Your task to perform on an android device: What's the news in Argentina? Image 0: 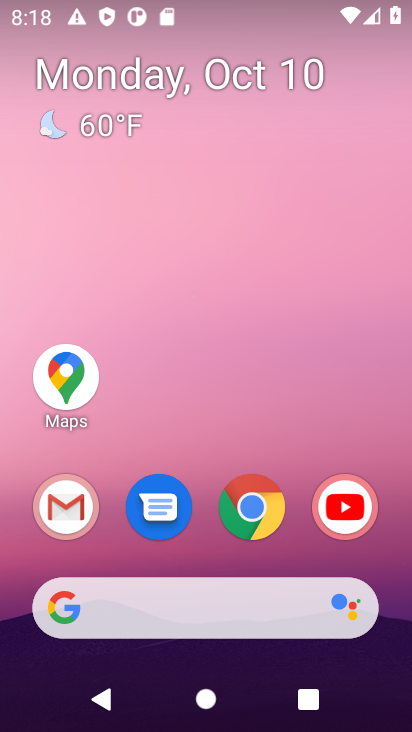
Step 0: click (144, 605)
Your task to perform on an android device: What's the news in Argentina? Image 1: 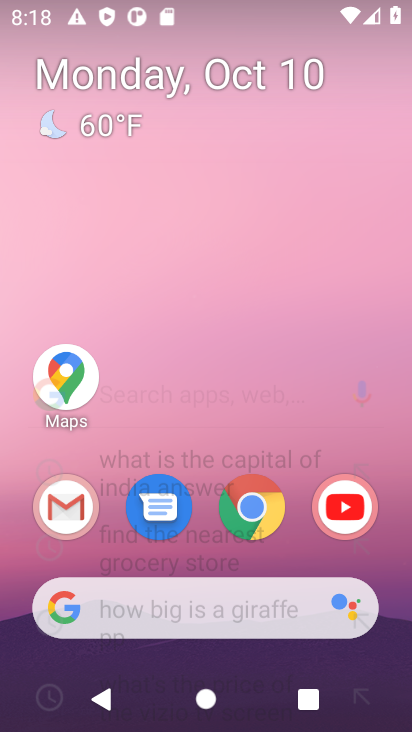
Step 1: click (185, 602)
Your task to perform on an android device: What's the news in Argentina? Image 2: 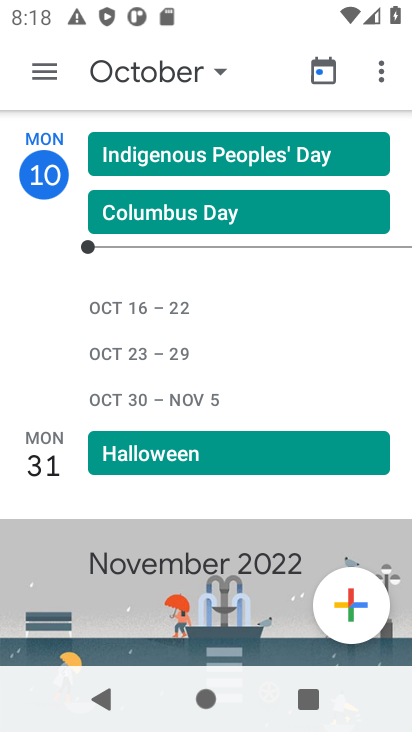
Step 2: type "What's the news in Argentina?"
Your task to perform on an android device: What's the news in Argentina? Image 3: 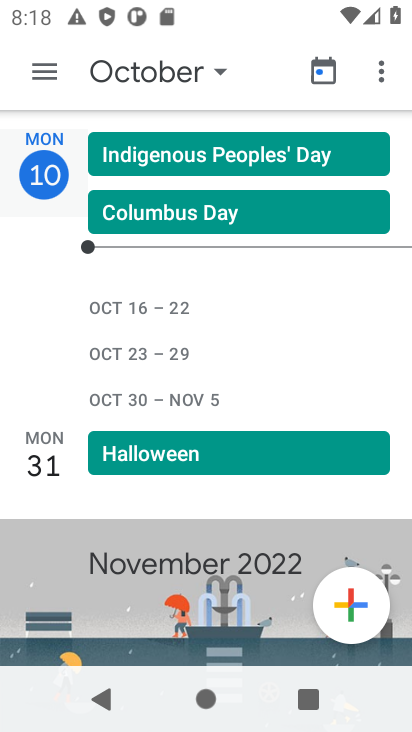
Step 3: type "What's the news in Argentina?"
Your task to perform on an android device: What's the news in Argentina? Image 4: 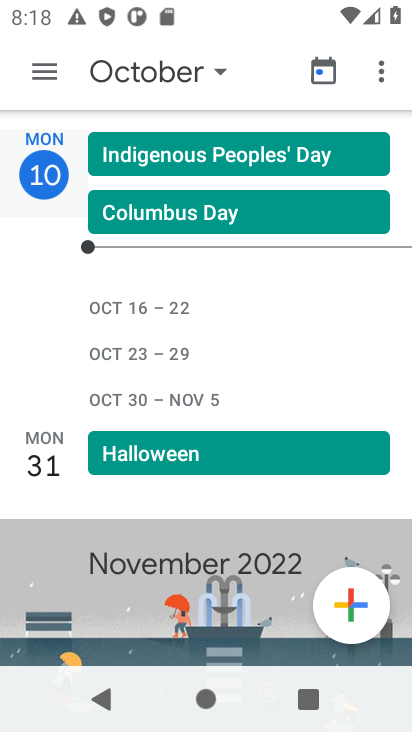
Step 4: press home button
Your task to perform on an android device: What's the news in Argentina? Image 5: 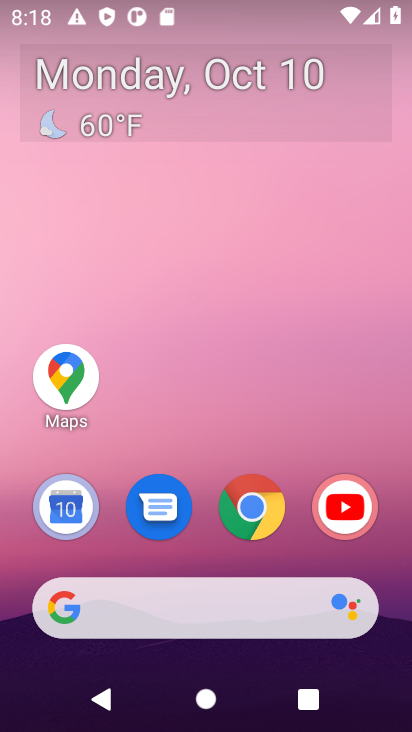
Step 5: click (213, 609)
Your task to perform on an android device: What's the news in Argentina? Image 6: 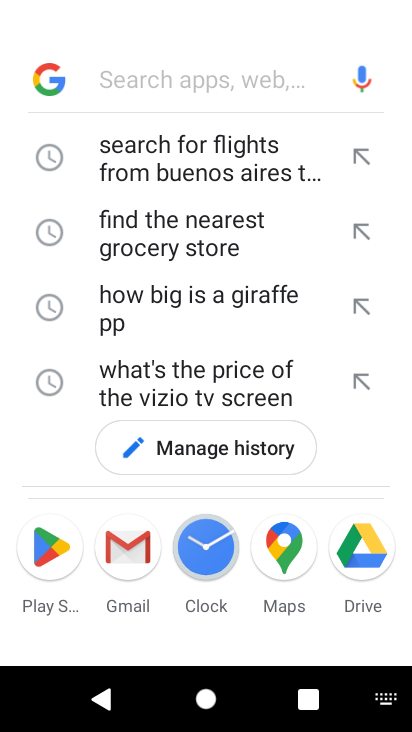
Step 6: click (160, 86)
Your task to perform on an android device: What's the news in Argentina? Image 7: 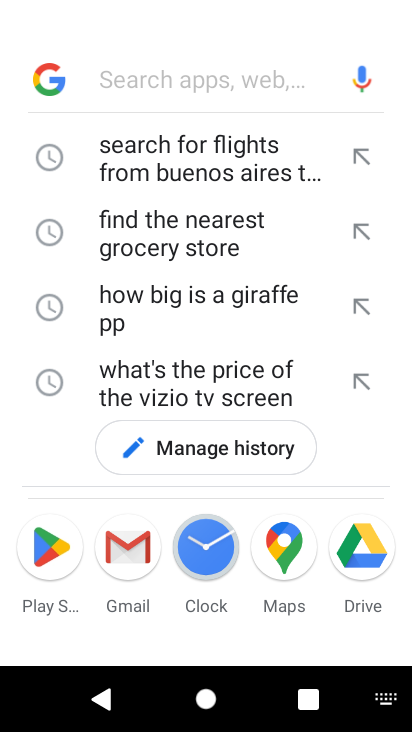
Step 7: type "What's the news in Argentina?"
Your task to perform on an android device: What's the news in Argentina? Image 8: 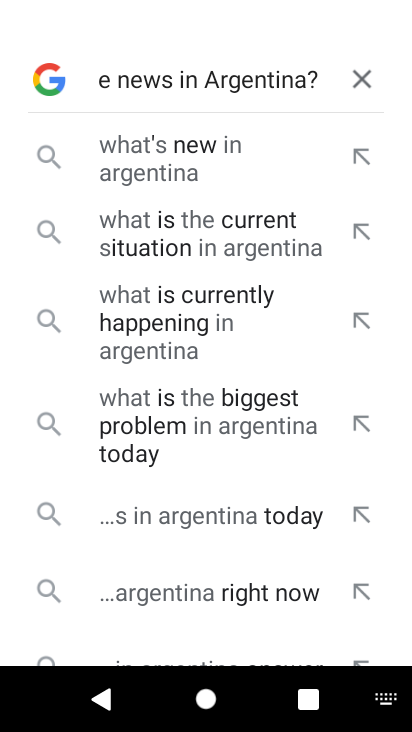
Step 8: click (172, 147)
Your task to perform on an android device: What's the news in Argentina? Image 9: 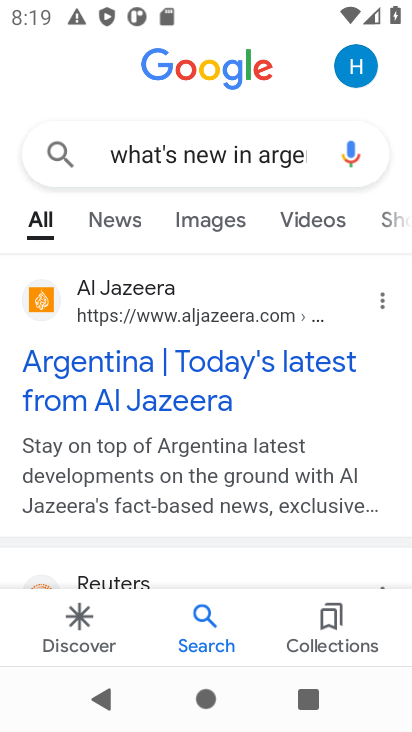
Step 9: task complete